Your task to perform on an android device: allow cookies in the chrome app Image 0: 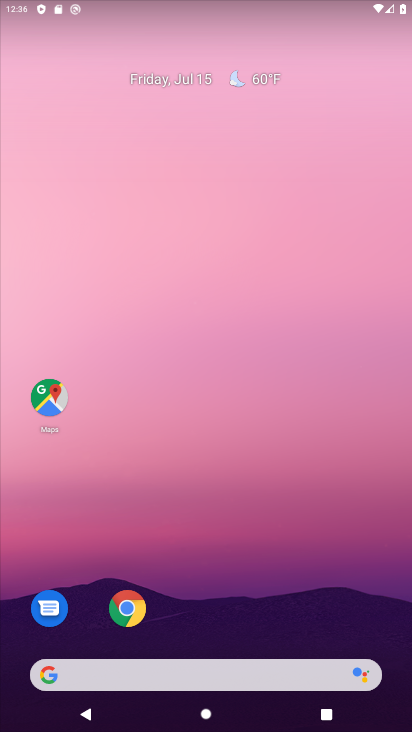
Step 0: drag from (246, 610) to (265, 169)
Your task to perform on an android device: allow cookies in the chrome app Image 1: 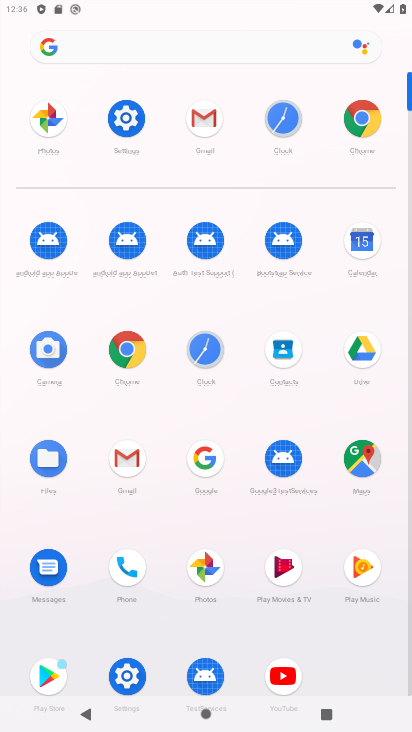
Step 1: click (118, 360)
Your task to perform on an android device: allow cookies in the chrome app Image 2: 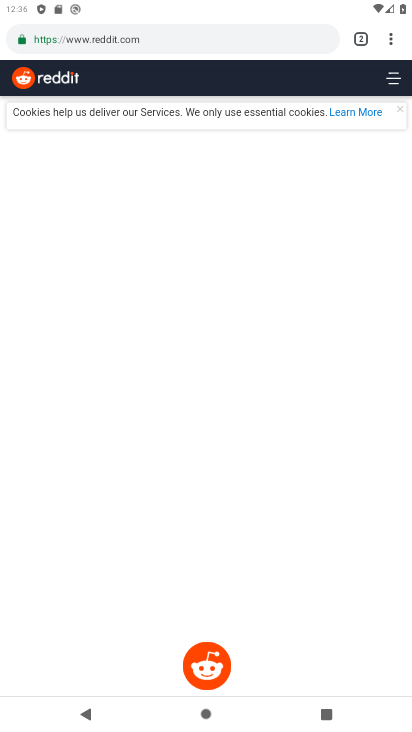
Step 2: drag from (389, 37) to (252, 469)
Your task to perform on an android device: allow cookies in the chrome app Image 3: 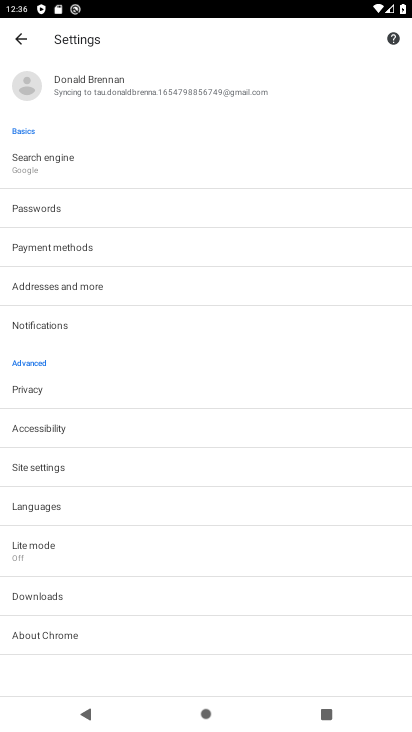
Step 3: click (56, 474)
Your task to perform on an android device: allow cookies in the chrome app Image 4: 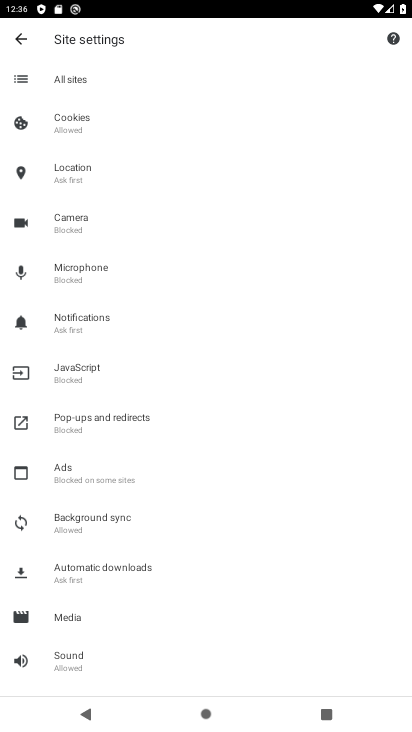
Step 4: click (77, 105)
Your task to perform on an android device: allow cookies in the chrome app Image 5: 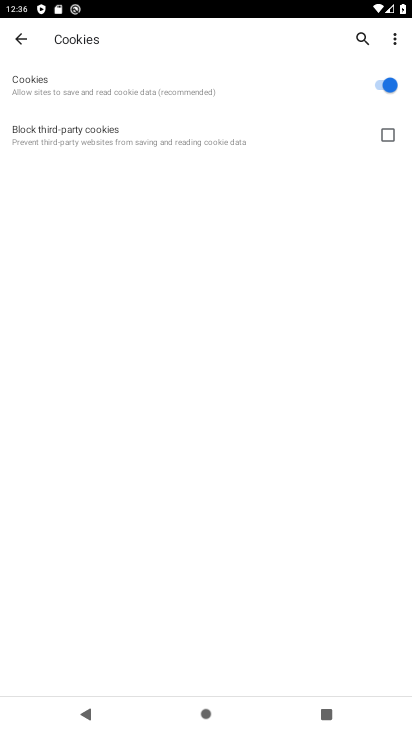
Step 5: task complete